Your task to perform on an android device: turn pop-ups on in chrome Image 0: 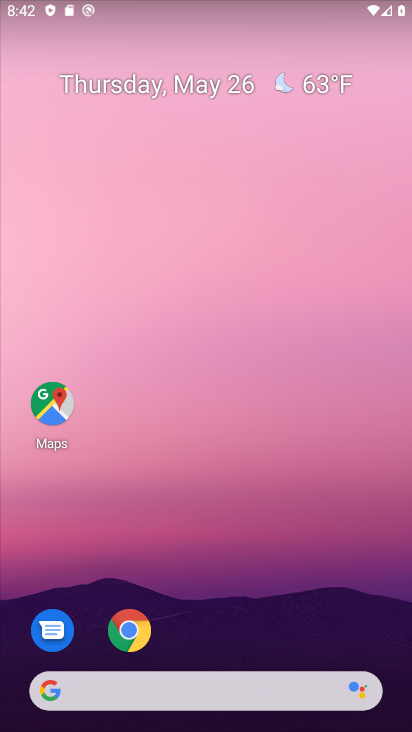
Step 0: drag from (254, 713) to (202, 2)
Your task to perform on an android device: turn pop-ups on in chrome Image 1: 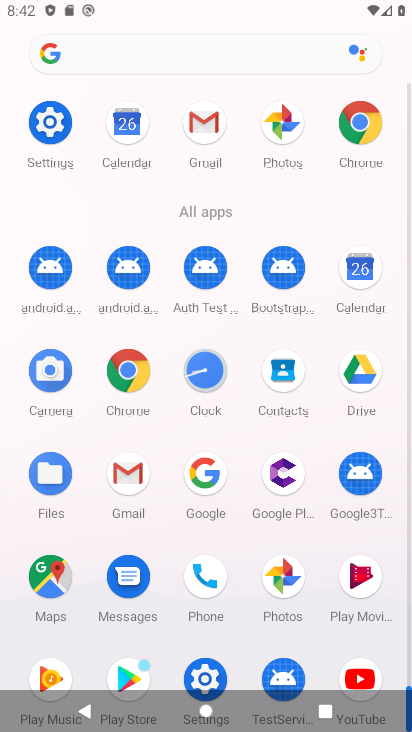
Step 1: click (361, 127)
Your task to perform on an android device: turn pop-ups on in chrome Image 2: 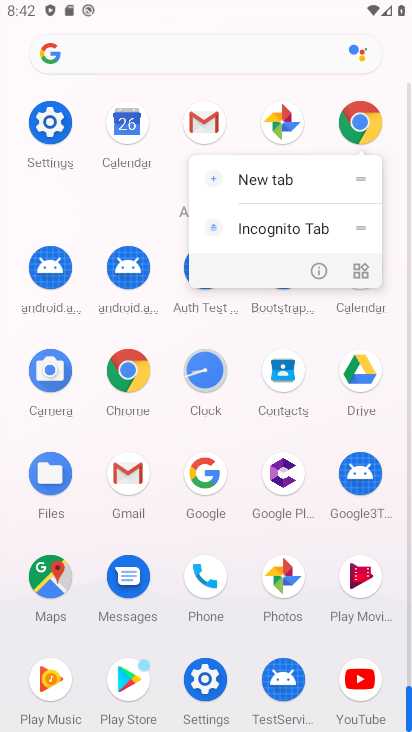
Step 2: click (351, 124)
Your task to perform on an android device: turn pop-ups on in chrome Image 3: 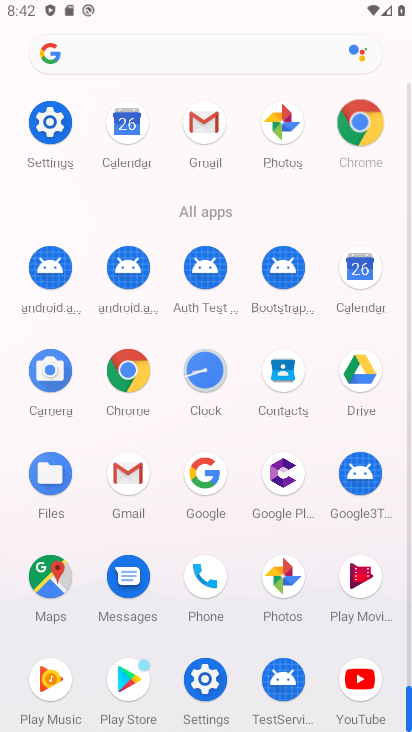
Step 3: click (352, 123)
Your task to perform on an android device: turn pop-ups on in chrome Image 4: 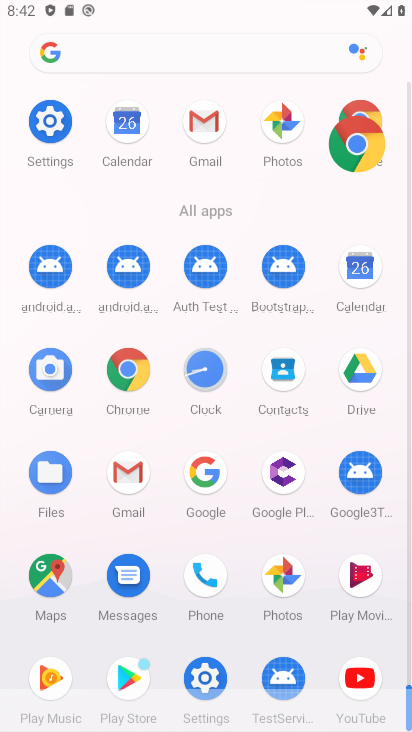
Step 4: click (353, 122)
Your task to perform on an android device: turn pop-ups on in chrome Image 5: 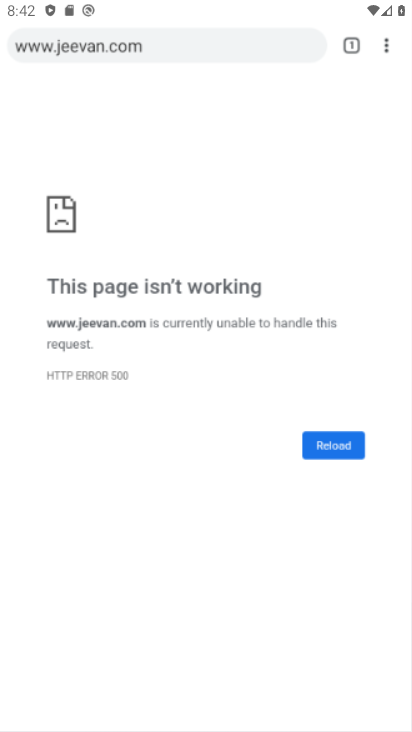
Step 5: click (354, 122)
Your task to perform on an android device: turn pop-ups on in chrome Image 6: 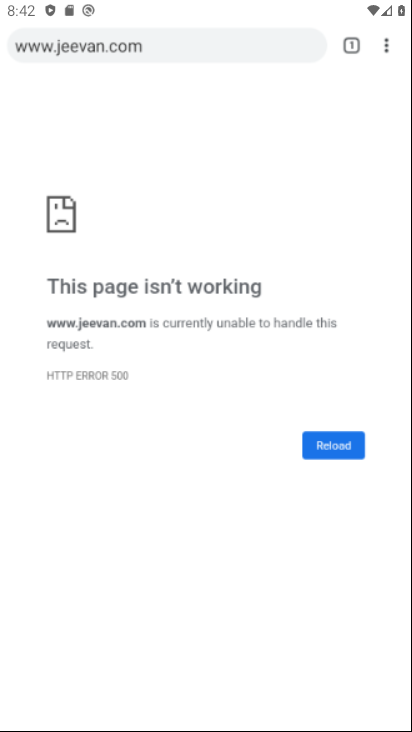
Step 6: click (355, 122)
Your task to perform on an android device: turn pop-ups on in chrome Image 7: 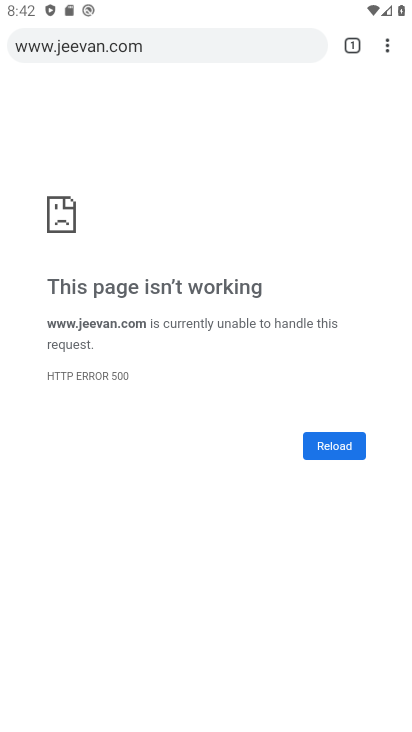
Step 7: press back button
Your task to perform on an android device: turn pop-ups on in chrome Image 8: 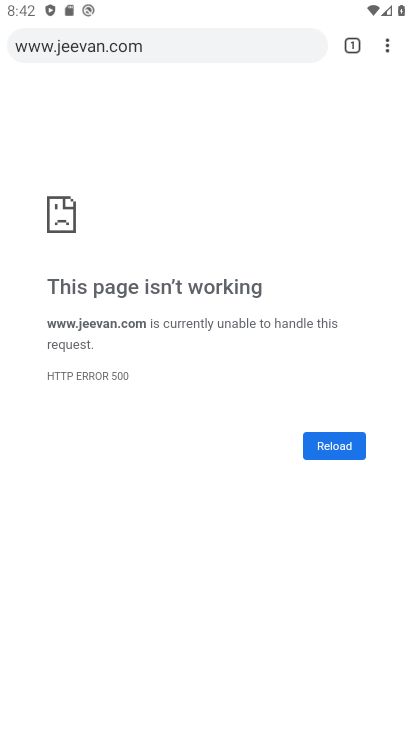
Step 8: press back button
Your task to perform on an android device: turn pop-ups on in chrome Image 9: 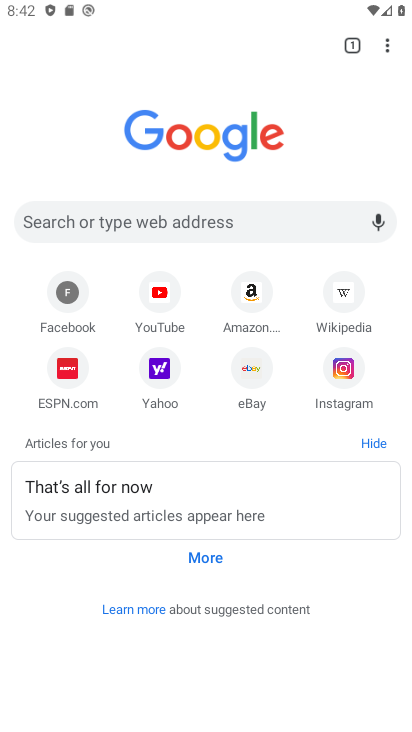
Step 9: press back button
Your task to perform on an android device: turn pop-ups on in chrome Image 10: 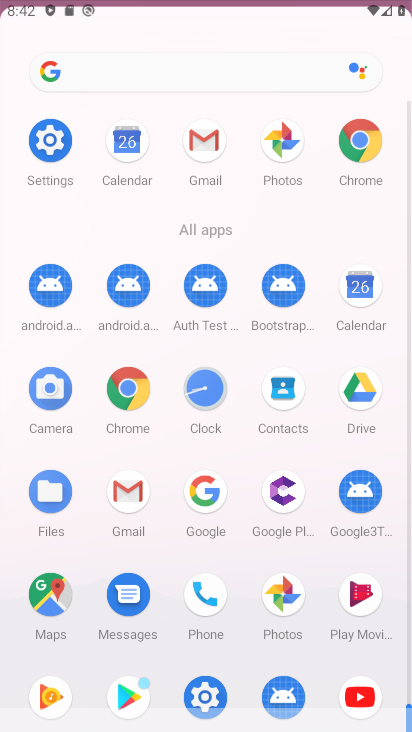
Step 10: press back button
Your task to perform on an android device: turn pop-ups on in chrome Image 11: 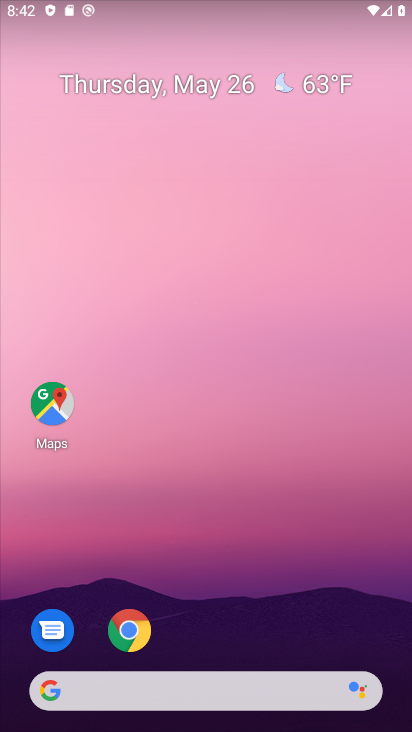
Step 11: drag from (250, 656) to (127, 47)
Your task to perform on an android device: turn pop-ups on in chrome Image 12: 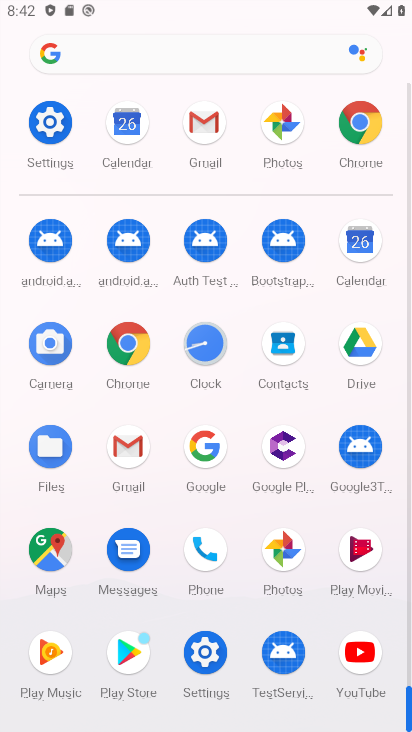
Step 12: click (352, 130)
Your task to perform on an android device: turn pop-ups on in chrome Image 13: 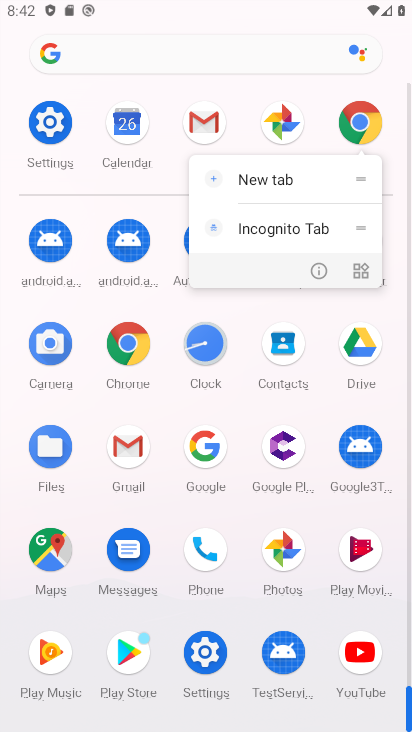
Step 13: click (321, 281)
Your task to perform on an android device: turn pop-ups on in chrome Image 14: 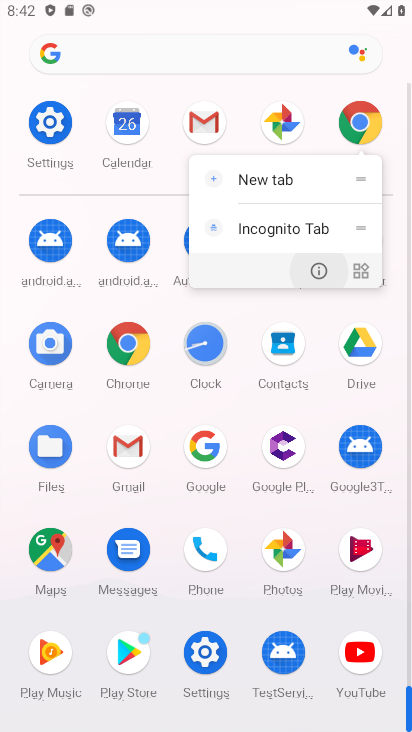
Step 14: click (321, 278)
Your task to perform on an android device: turn pop-ups on in chrome Image 15: 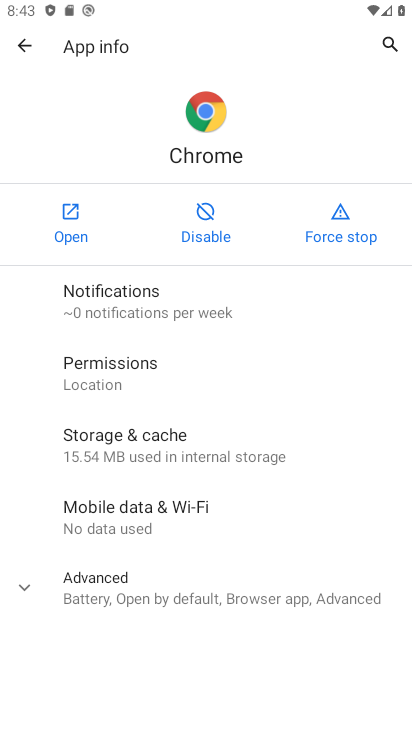
Step 15: press back button
Your task to perform on an android device: turn pop-ups on in chrome Image 16: 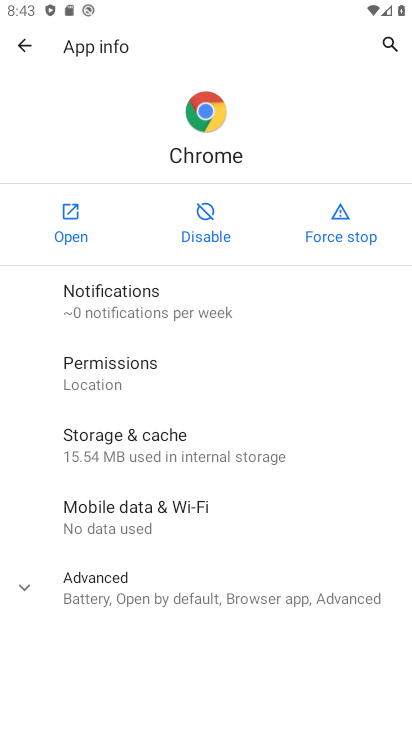
Step 16: press back button
Your task to perform on an android device: turn pop-ups on in chrome Image 17: 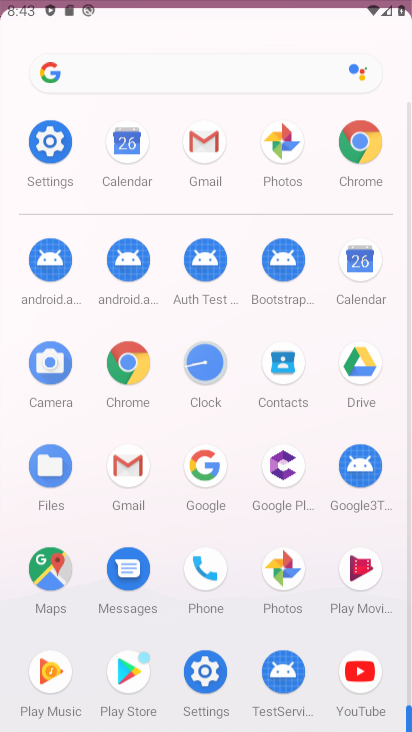
Step 17: press back button
Your task to perform on an android device: turn pop-ups on in chrome Image 18: 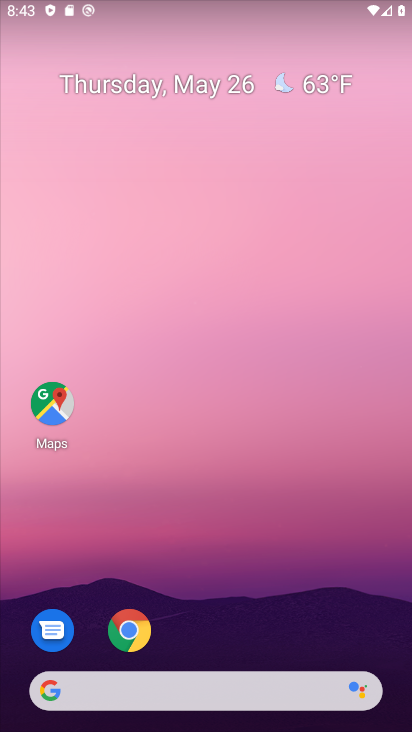
Step 18: drag from (260, 597) to (154, 97)
Your task to perform on an android device: turn pop-ups on in chrome Image 19: 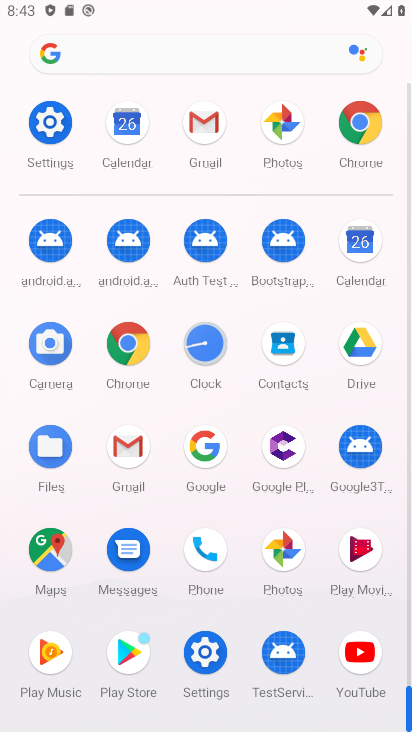
Step 19: click (369, 130)
Your task to perform on an android device: turn pop-ups on in chrome Image 20: 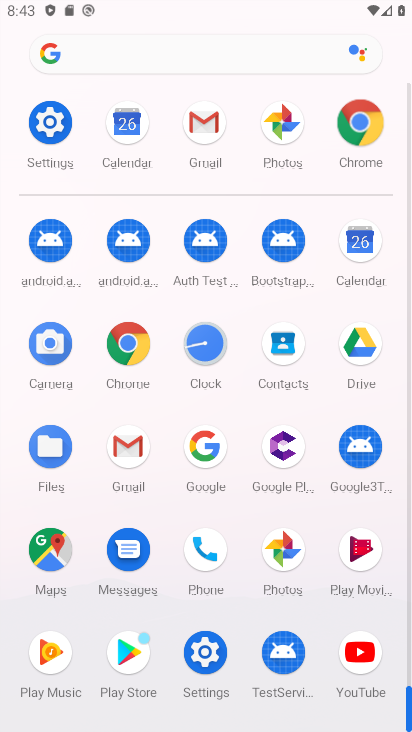
Step 20: click (369, 130)
Your task to perform on an android device: turn pop-ups on in chrome Image 21: 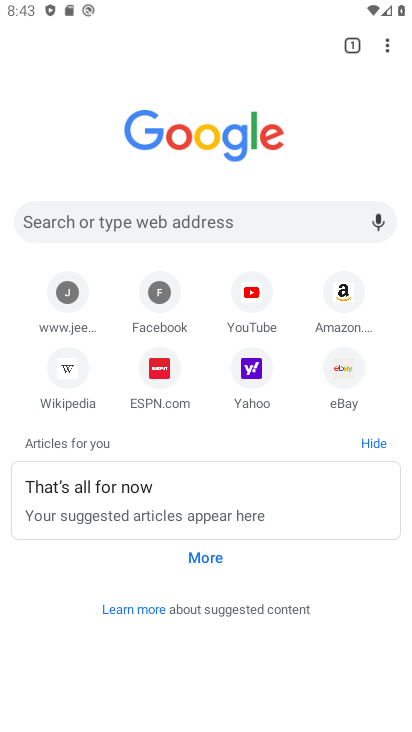
Step 21: drag from (387, 53) to (244, 376)
Your task to perform on an android device: turn pop-ups on in chrome Image 22: 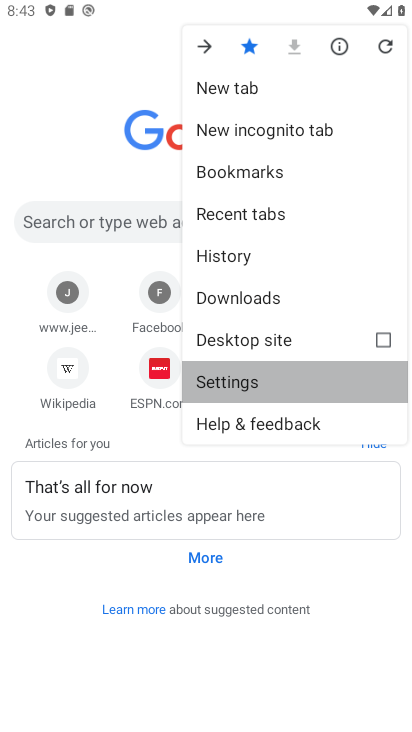
Step 22: click (244, 376)
Your task to perform on an android device: turn pop-ups on in chrome Image 23: 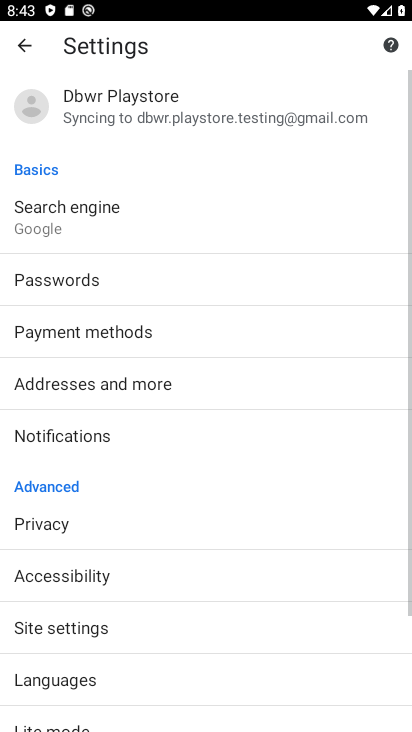
Step 23: drag from (84, 285) to (84, 222)
Your task to perform on an android device: turn pop-ups on in chrome Image 24: 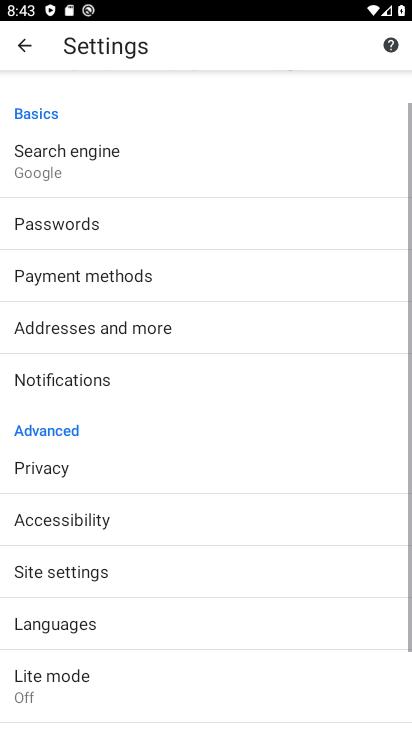
Step 24: drag from (113, 520) to (96, 129)
Your task to perform on an android device: turn pop-ups on in chrome Image 25: 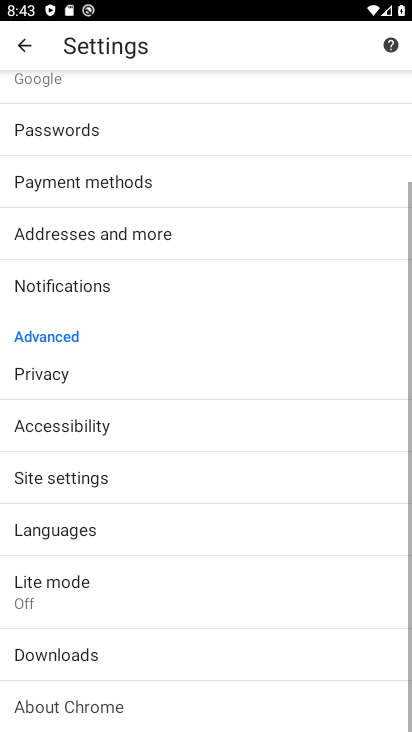
Step 25: drag from (119, 628) to (145, 274)
Your task to perform on an android device: turn pop-ups on in chrome Image 26: 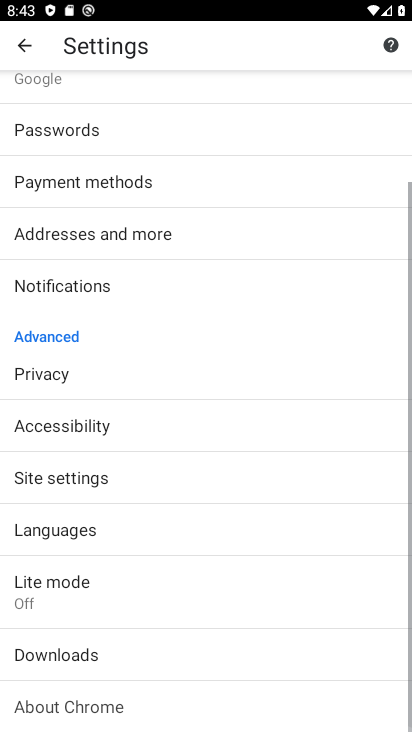
Step 26: drag from (143, 491) to (141, 133)
Your task to perform on an android device: turn pop-ups on in chrome Image 27: 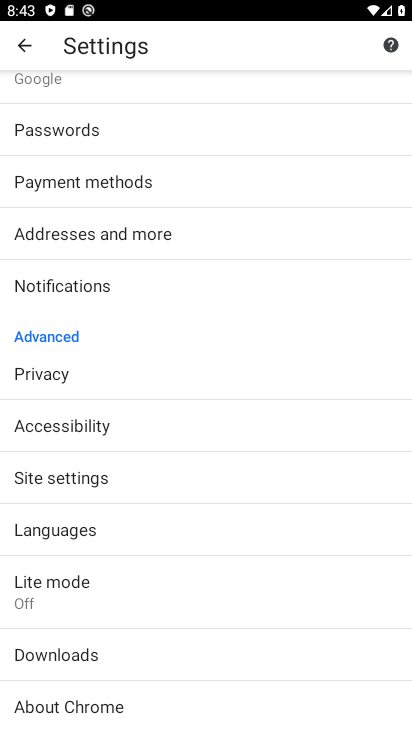
Step 27: click (60, 481)
Your task to perform on an android device: turn pop-ups on in chrome Image 28: 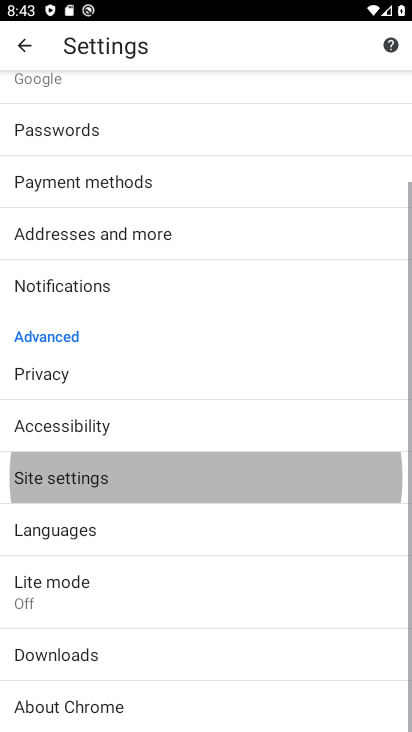
Step 28: click (60, 481)
Your task to perform on an android device: turn pop-ups on in chrome Image 29: 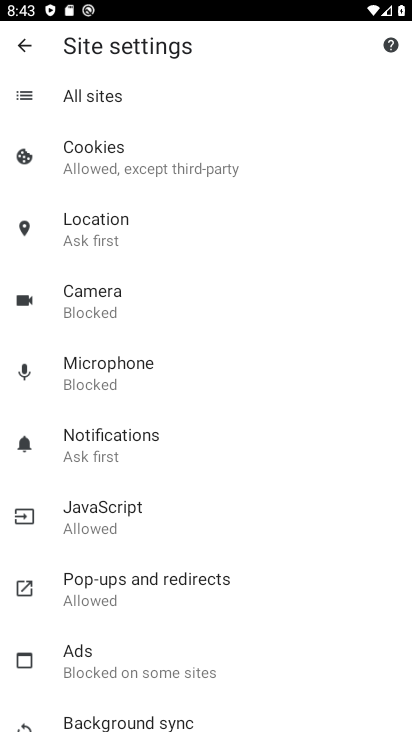
Step 29: click (104, 582)
Your task to perform on an android device: turn pop-ups on in chrome Image 30: 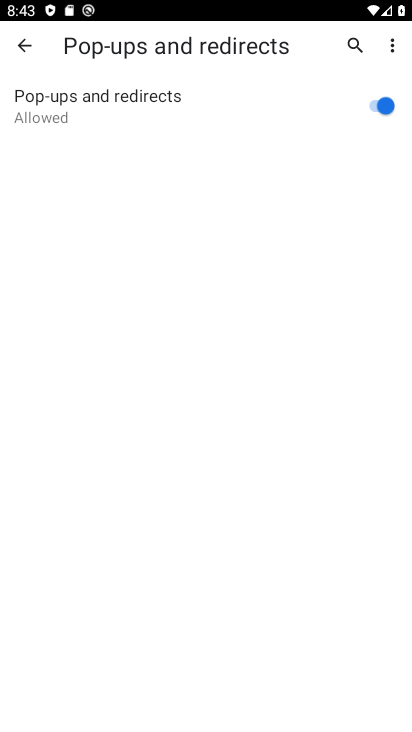
Step 30: task complete